Your task to perform on an android device: uninstall "Fetch Rewards" Image 0: 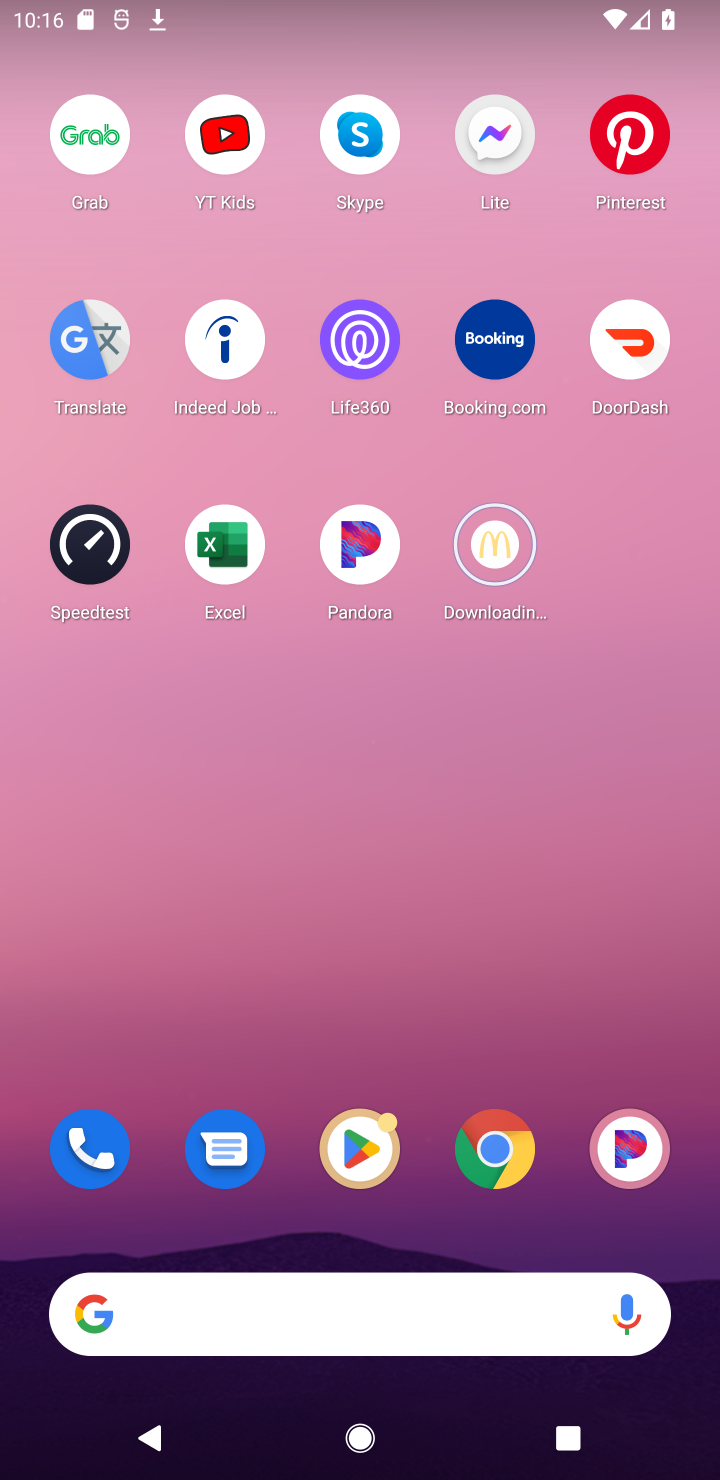
Step 0: click (336, 1159)
Your task to perform on an android device: uninstall "Fetch Rewards" Image 1: 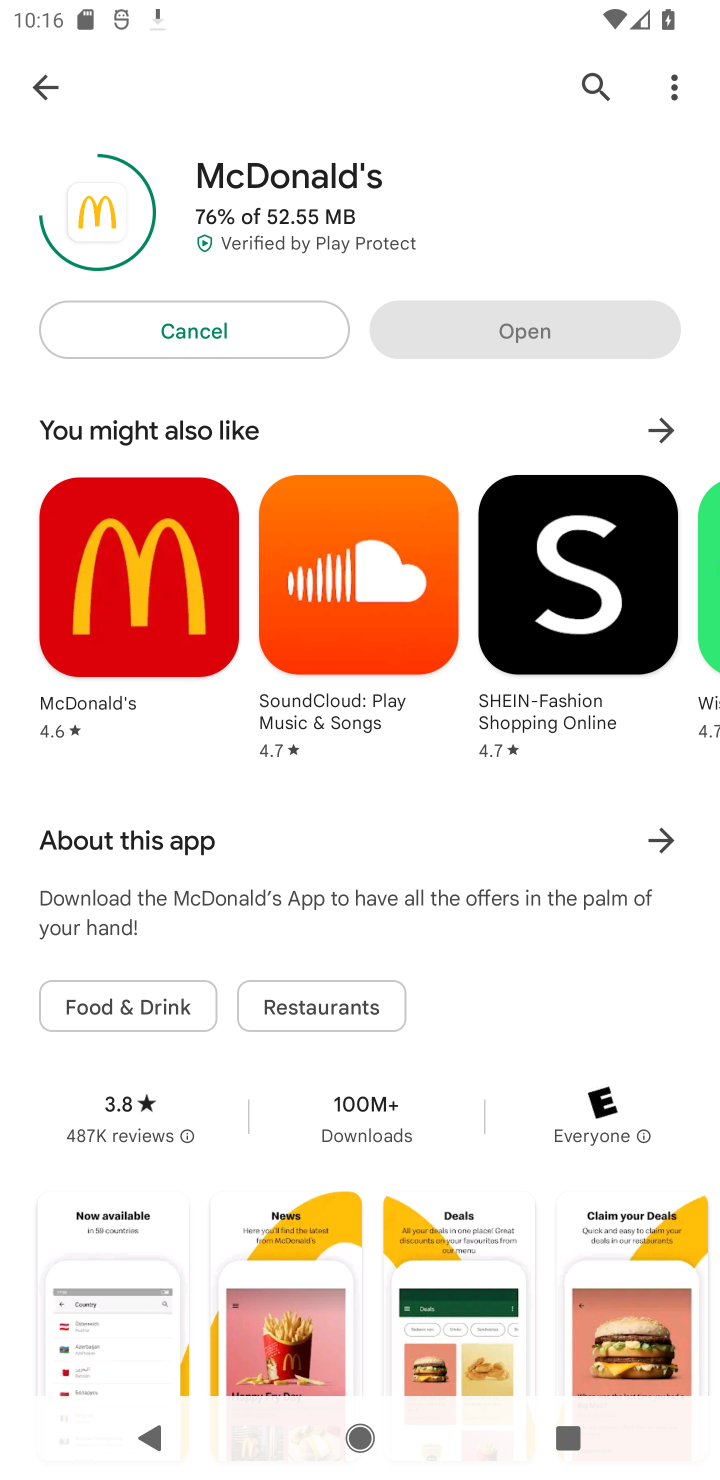
Step 1: click (589, 117)
Your task to perform on an android device: uninstall "Fetch Rewards" Image 2: 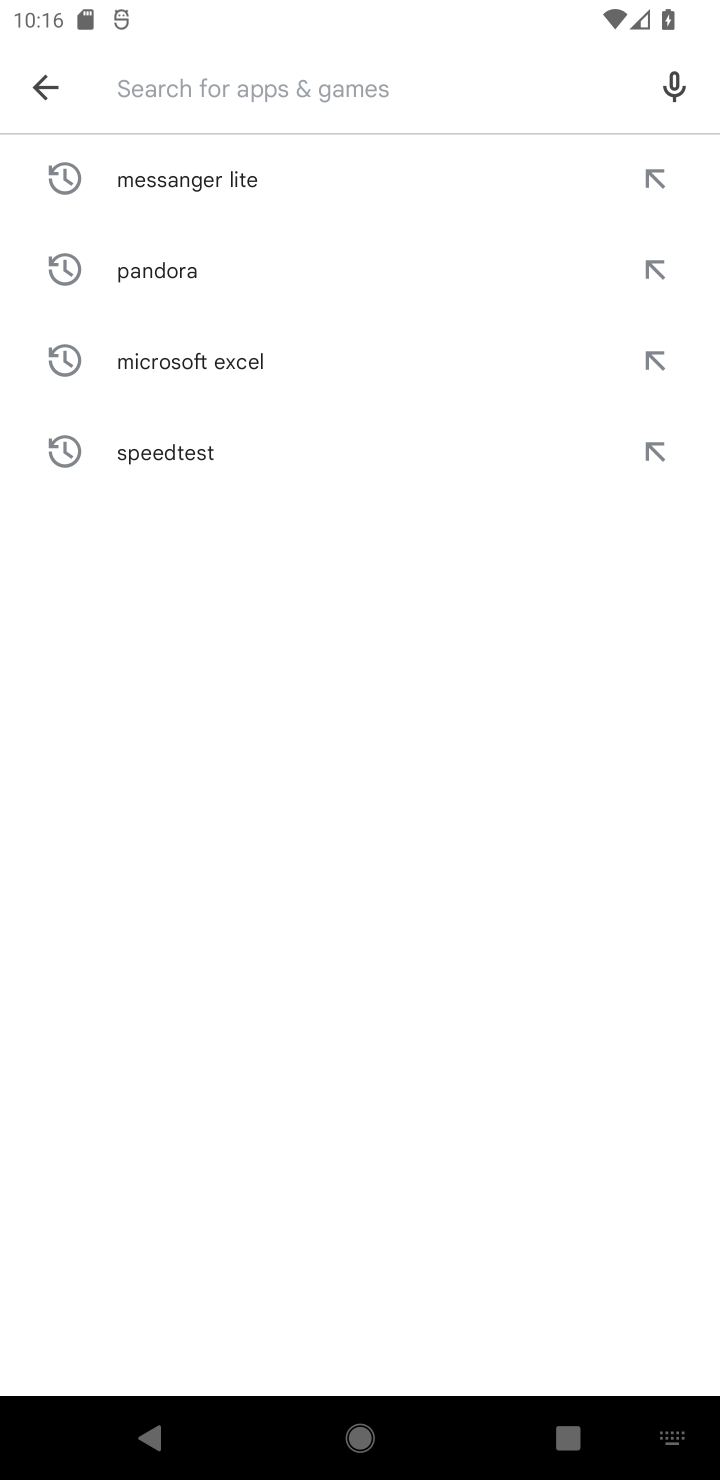
Step 2: type "fetch rewadr"
Your task to perform on an android device: uninstall "Fetch Rewards" Image 3: 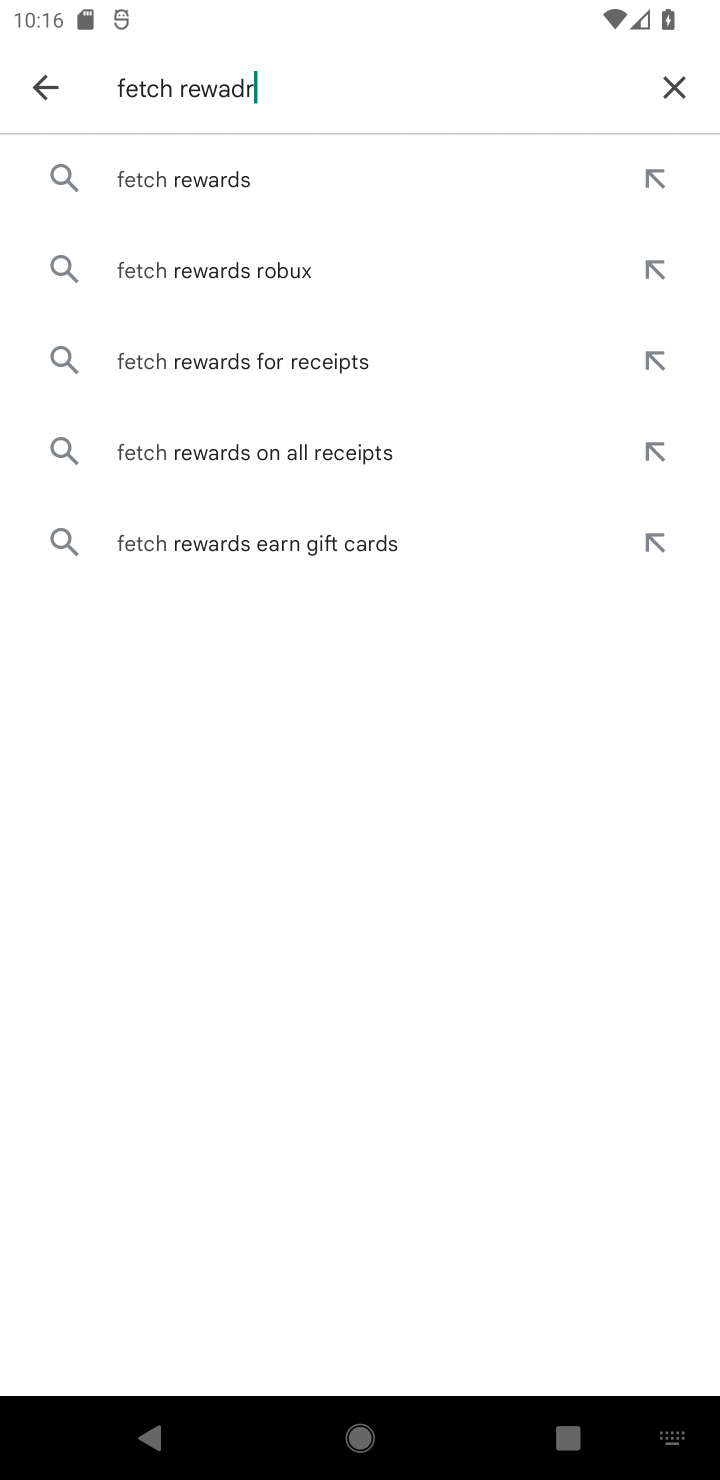
Step 3: click (302, 188)
Your task to perform on an android device: uninstall "Fetch Rewards" Image 4: 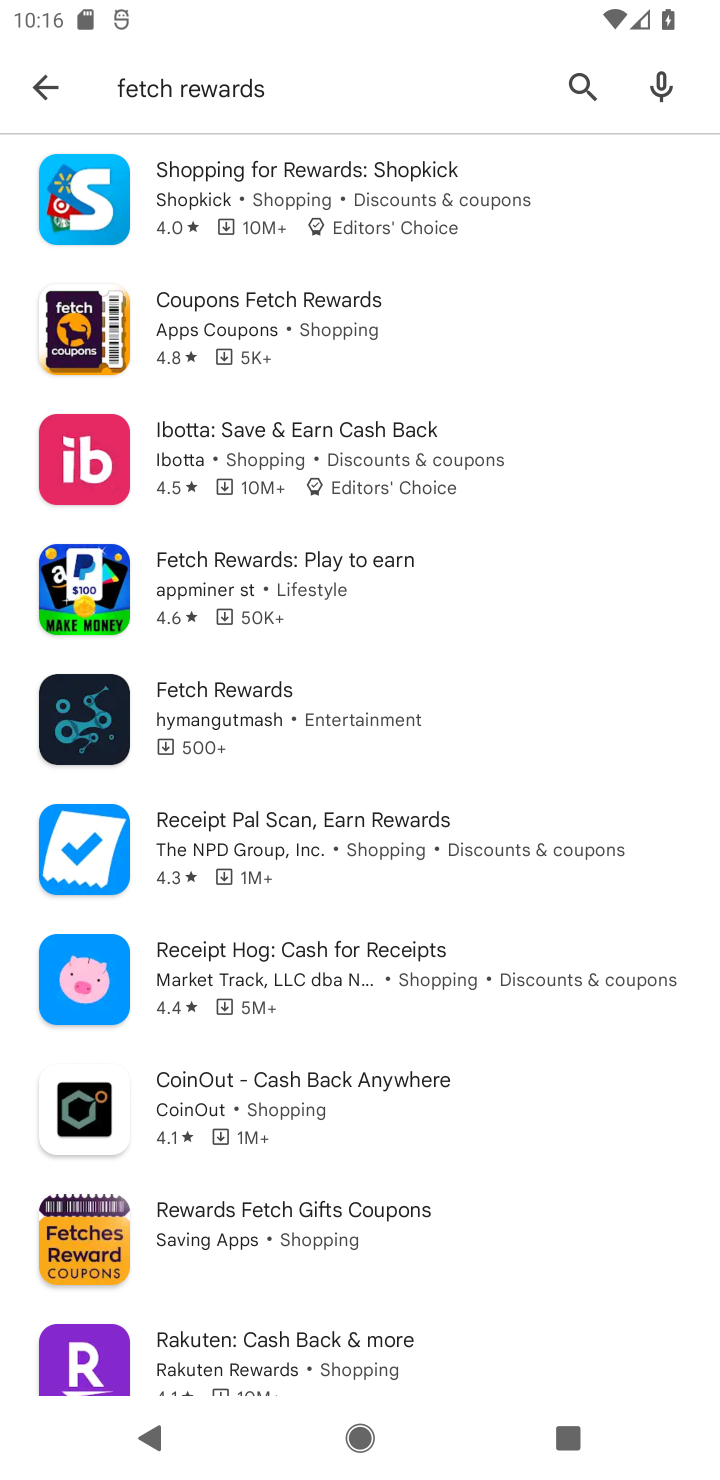
Step 4: click (394, 194)
Your task to perform on an android device: uninstall "Fetch Rewards" Image 5: 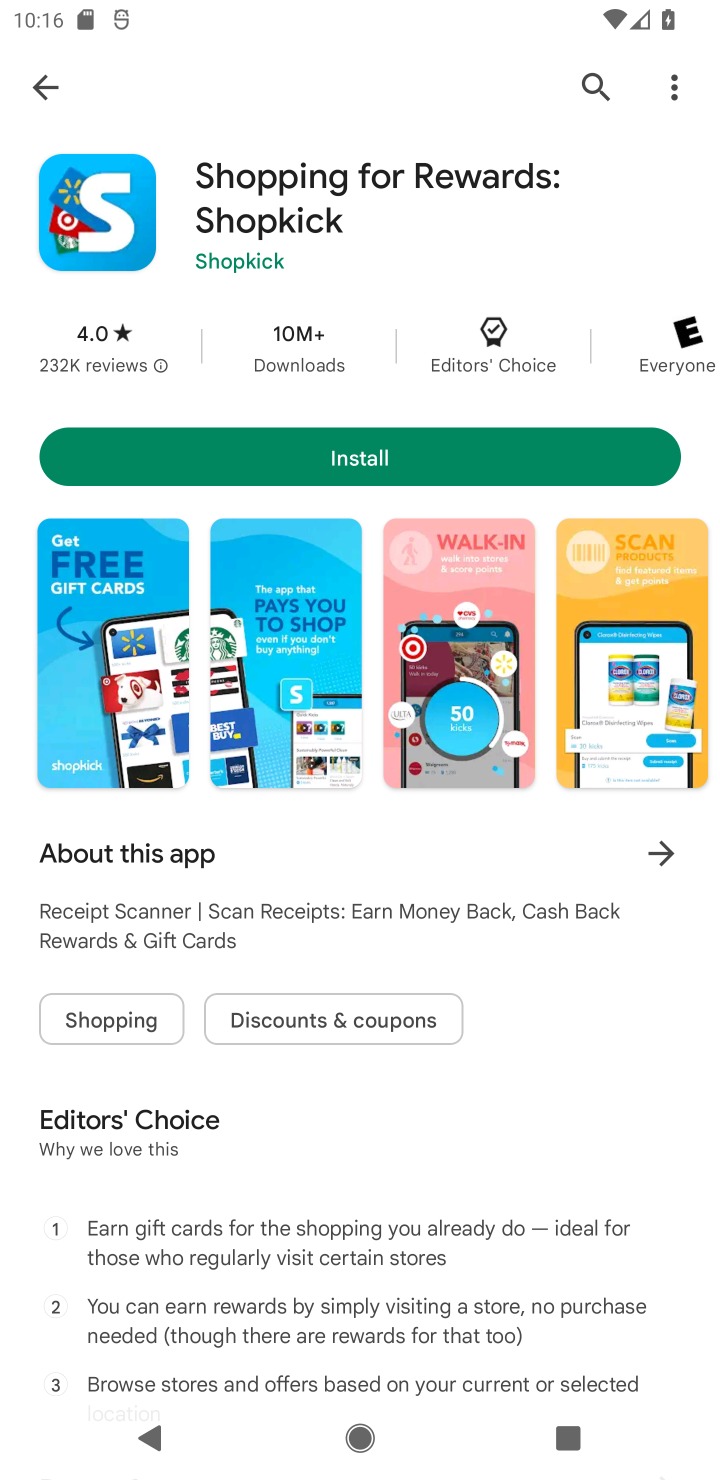
Step 5: click (422, 425)
Your task to perform on an android device: uninstall "Fetch Rewards" Image 6: 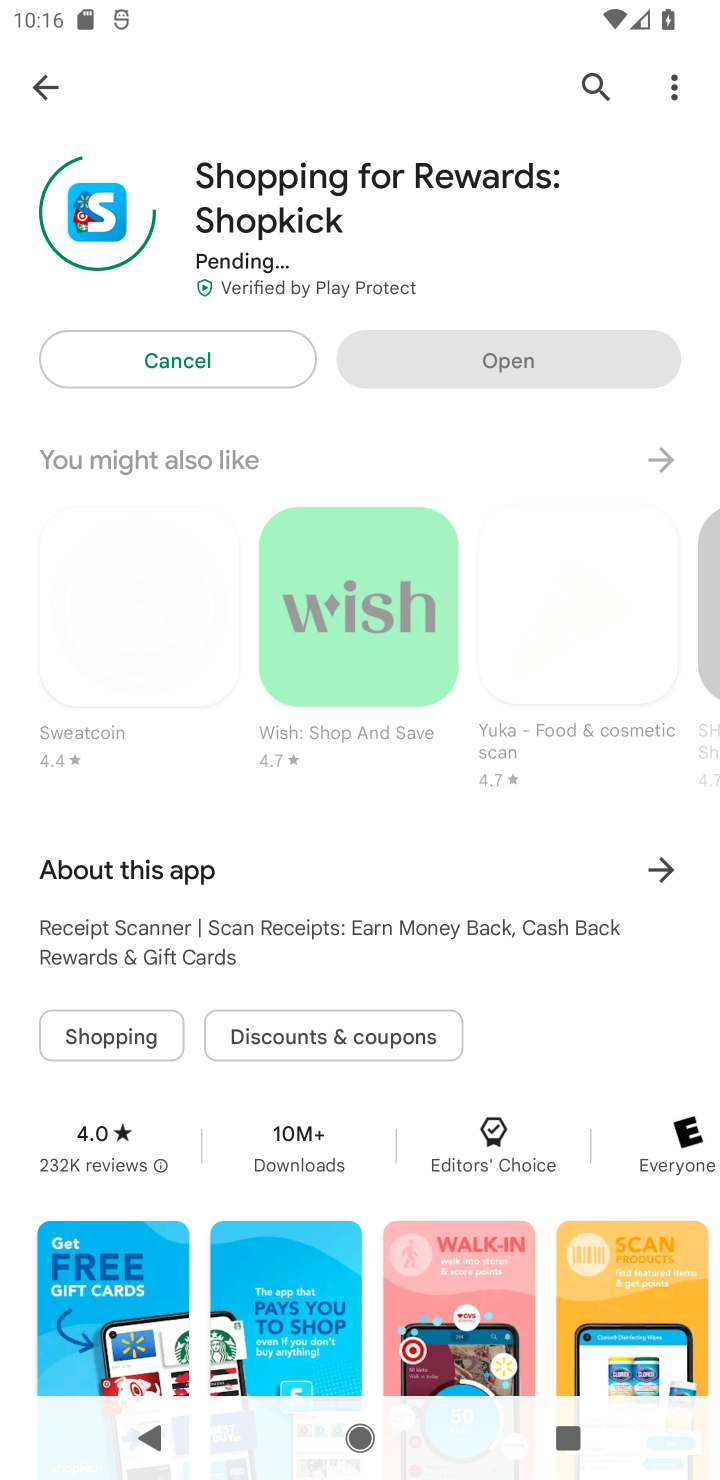
Step 6: task complete